Your task to perform on an android device: add a contact Image 0: 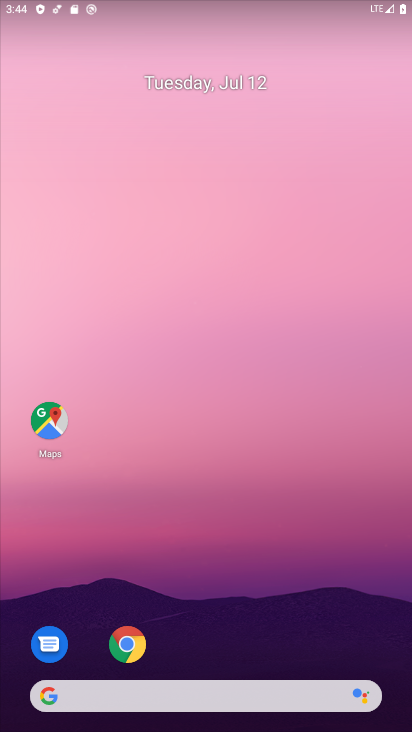
Step 0: drag from (193, 502) to (165, 34)
Your task to perform on an android device: add a contact Image 1: 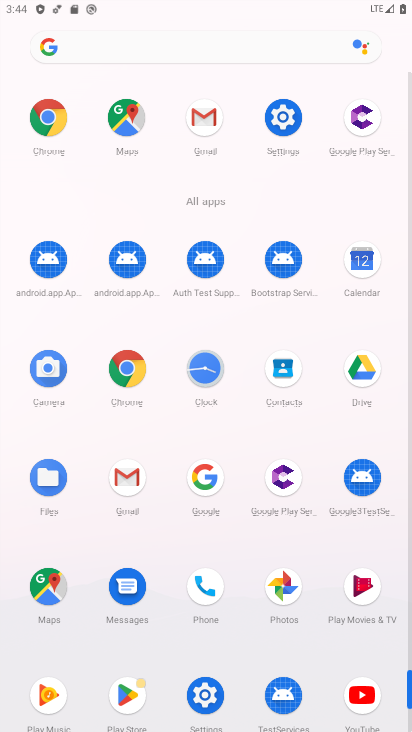
Step 1: click (282, 374)
Your task to perform on an android device: add a contact Image 2: 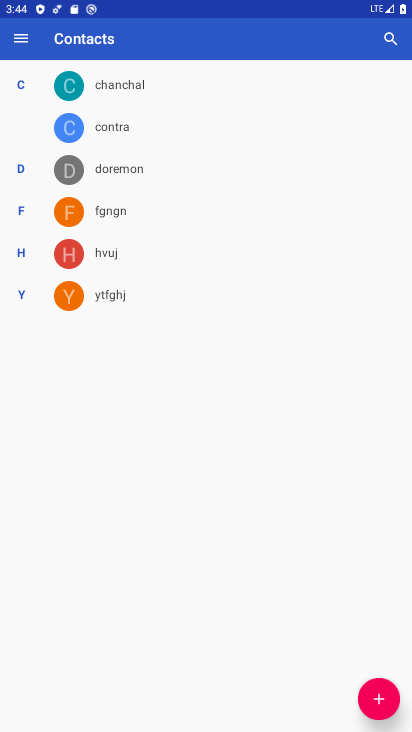
Step 2: click (386, 690)
Your task to perform on an android device: add a contact Image 3: 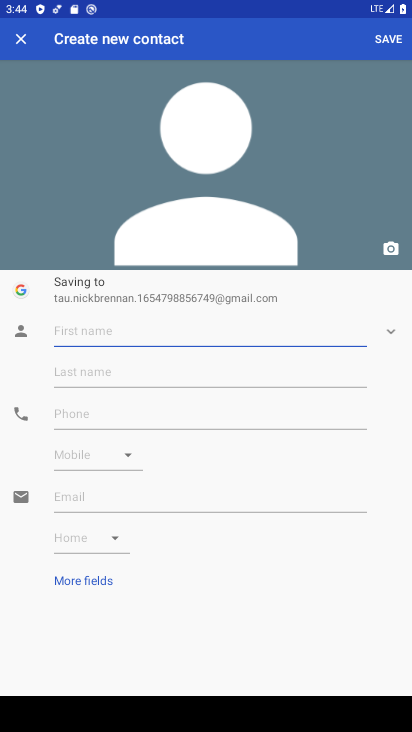
Step 3: type "hksdhk"
Your task to perform on an android device: add a contact Image 4: 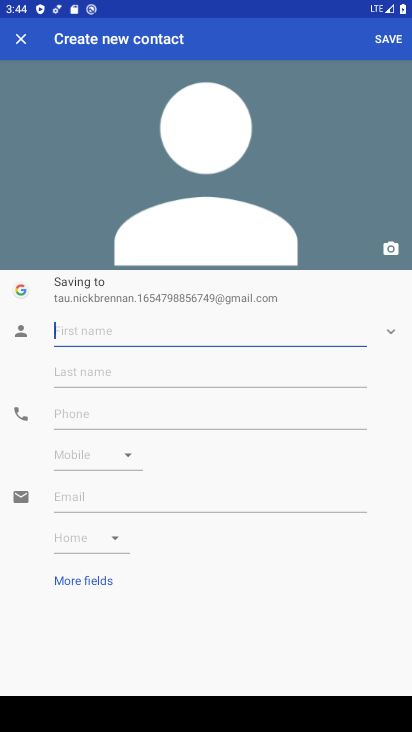
Step 4: click (77, 407)
Your task to perform on an android device: add a contact Image 5: 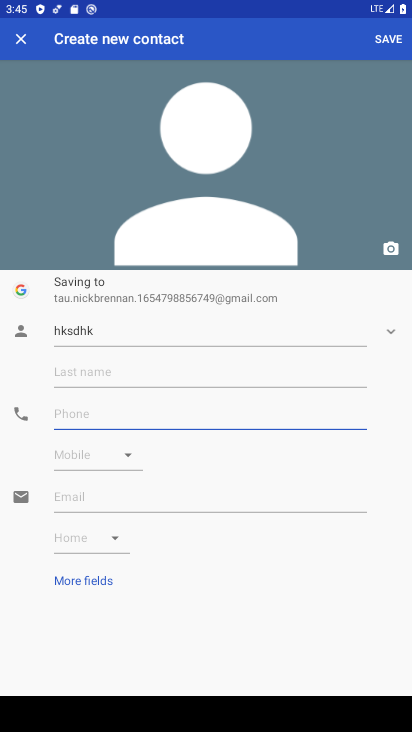
Step 5: type "8764325435"
Your task to perform on an android device: add a contact Image 6: 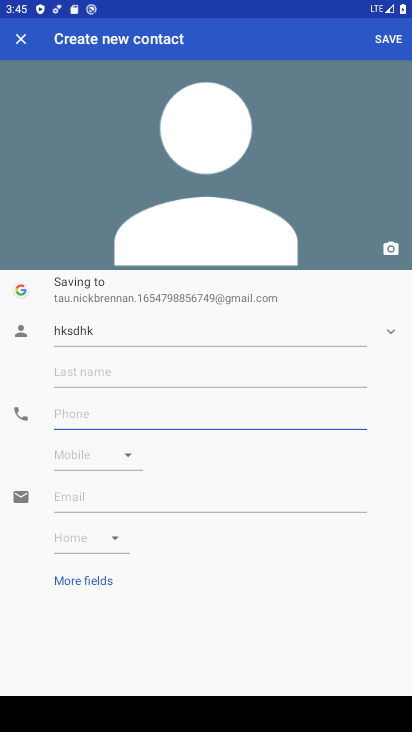
Step 6: click (381, 50)
Your task to perform on an android device: add a contact Image 7: 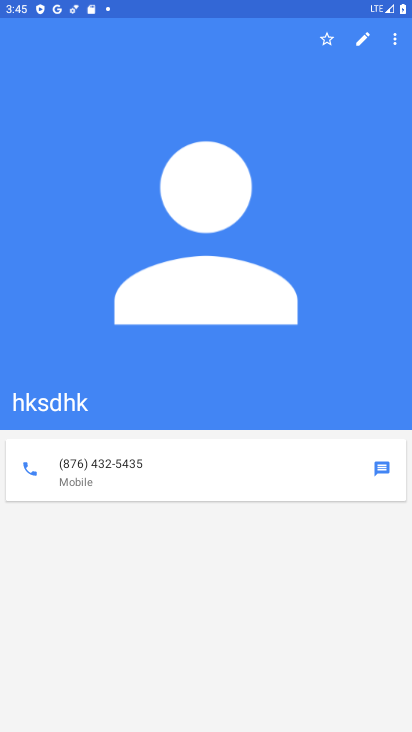
Step 7: task complete